Your task to perform on an android device: change alarm snooze length Image 0: 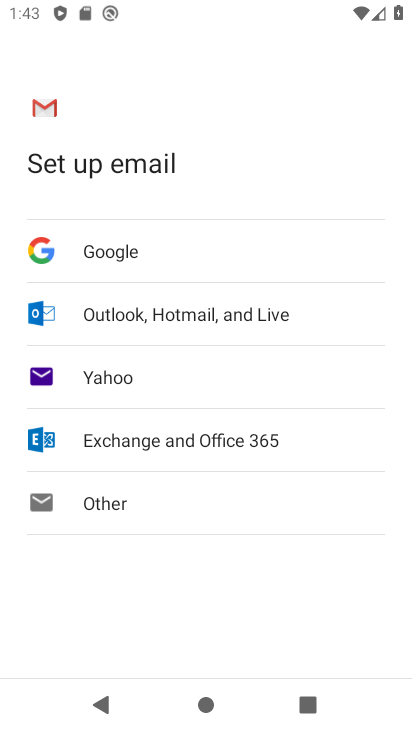
Step 0: press home button
Your task to perform on an android device: change alarm snooze length Image 1: 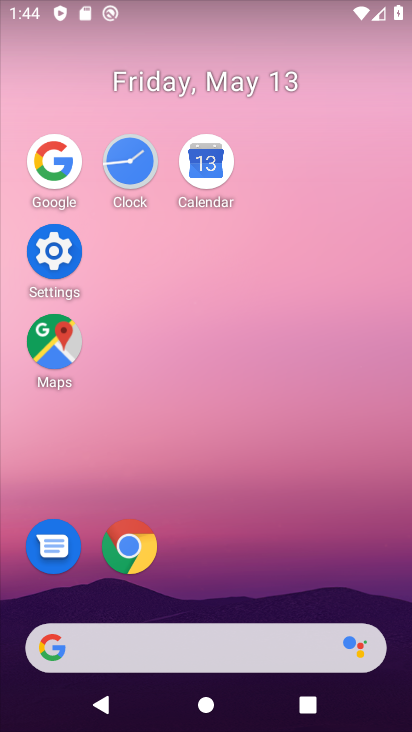
Step 1: click (138, 157)
Your task to perform on an android device: change alarm snooze length Image 2: 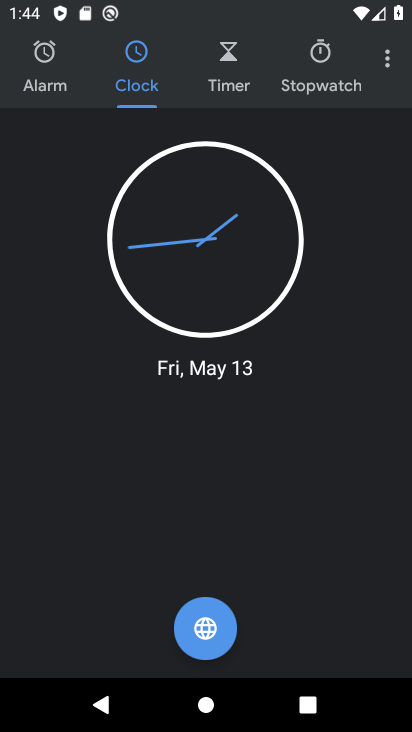
Step 2: click (380, 65)
Your task to perform on an android device: change alarm snooze length Image 3: 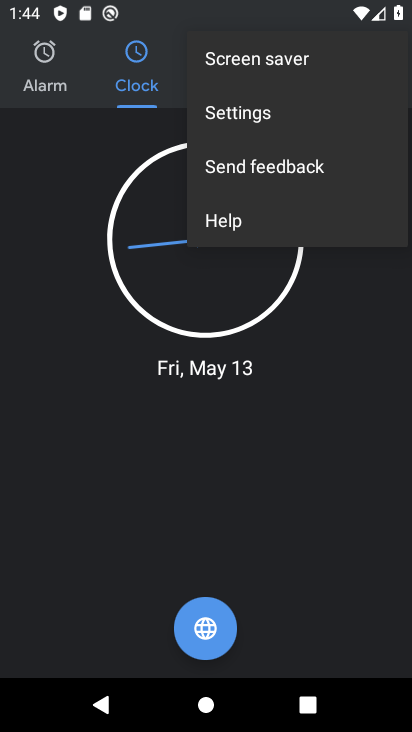
Step 3: click (282, 111)
Your task to perform on an android device: change alarm snooze length Image 4: 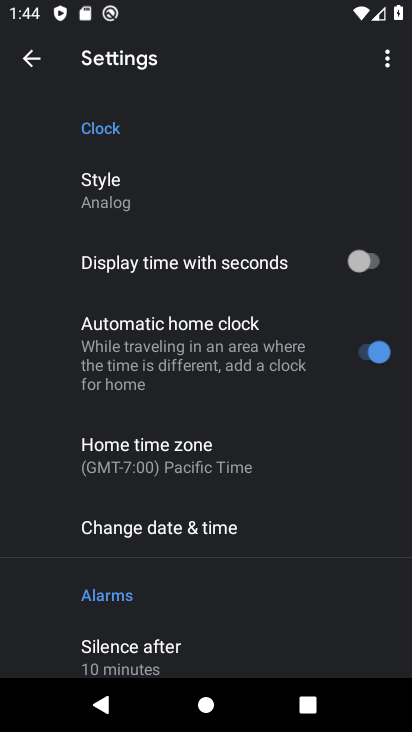
Step 4: drag from (211, 582) to (195, 238)
Your task to perform on an android device: change alarm snooze length Image 5: 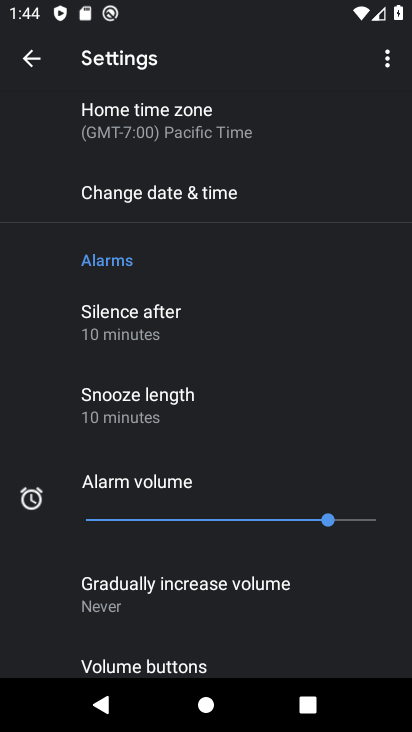
Step 5: click (215, 402)
Your task to perform on an android device: change alarm snooze length Image 6: 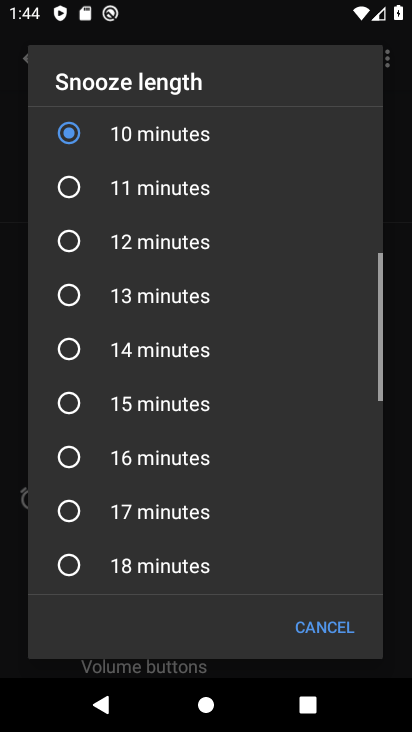
Step 6: click (143, 184)
Your task to perform on an android device: change alarm snooze length Image 7: 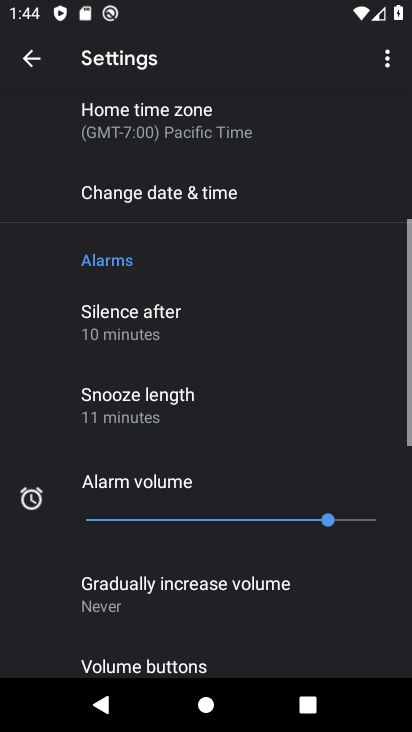
Step 7: task complete